Your task to perform on an android device: Clear the shopping cart on bestbuy. Add lg ultragear to the cart on bestbuy, then select checkout. Image 0: 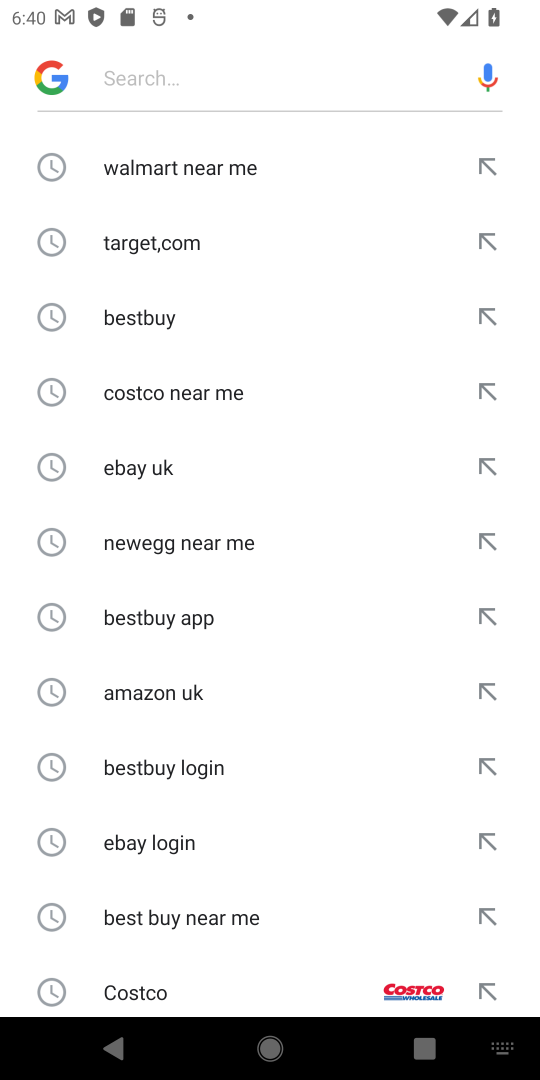
Step 0: click (118, 315)
Your task to perform on an android device: Clear the shopping cart on bestbuy. Add lg ultragear to the cart on bestbuy, then select checkout. Image 1: 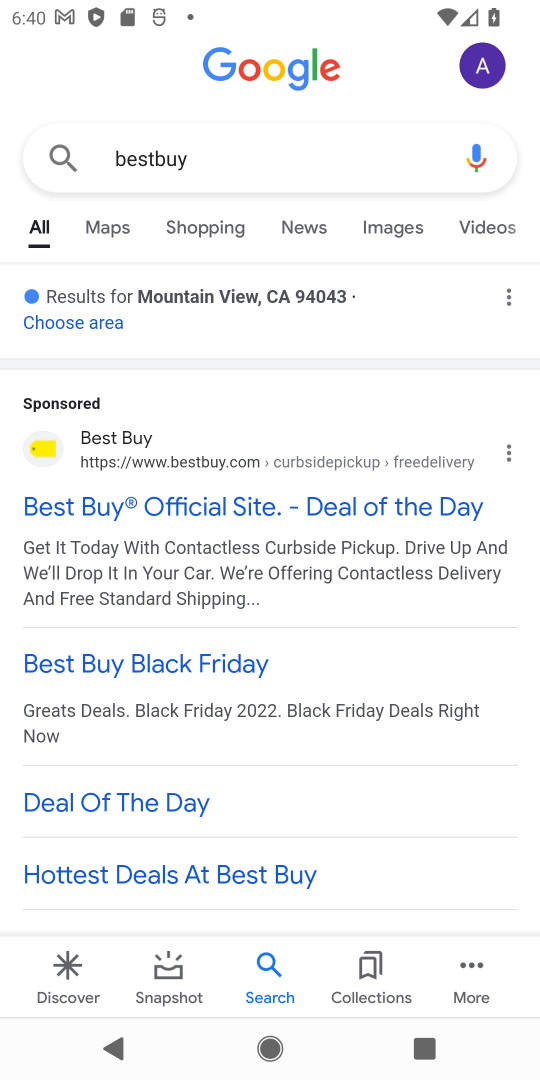
Step 1: click (195, 497)
Your task to perform on an android device: Clear the shopping cart on bestbuy. Add lg ultragear to the cart on bestbuy, then select checkout. Image 2: 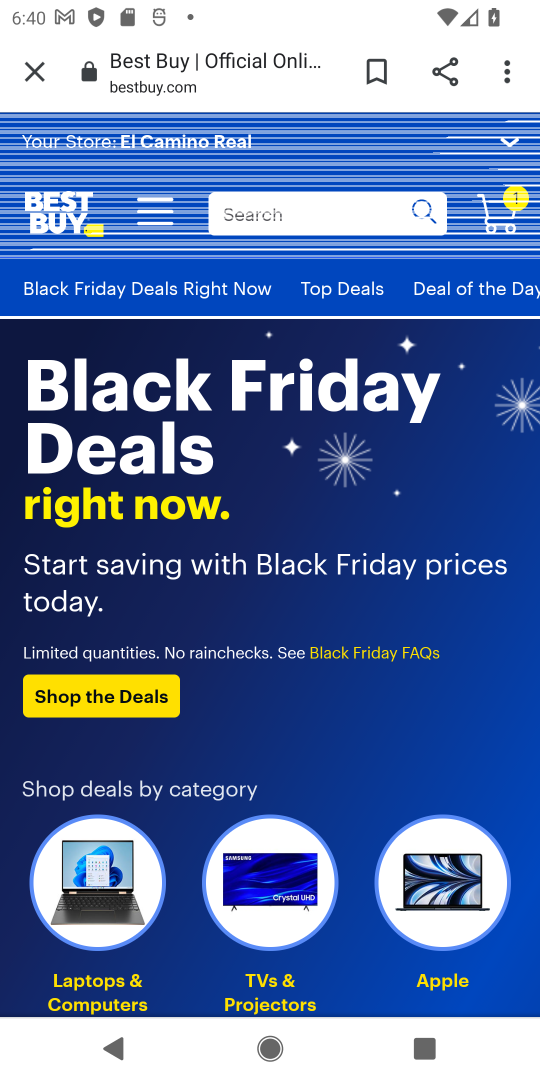
Step 2: click (310, 209)
Your task to perform on an android device: Clear the shopping cart on bestbuy. Add lg ultragear to the cart on bestbuy, then select checkout. Image 3: 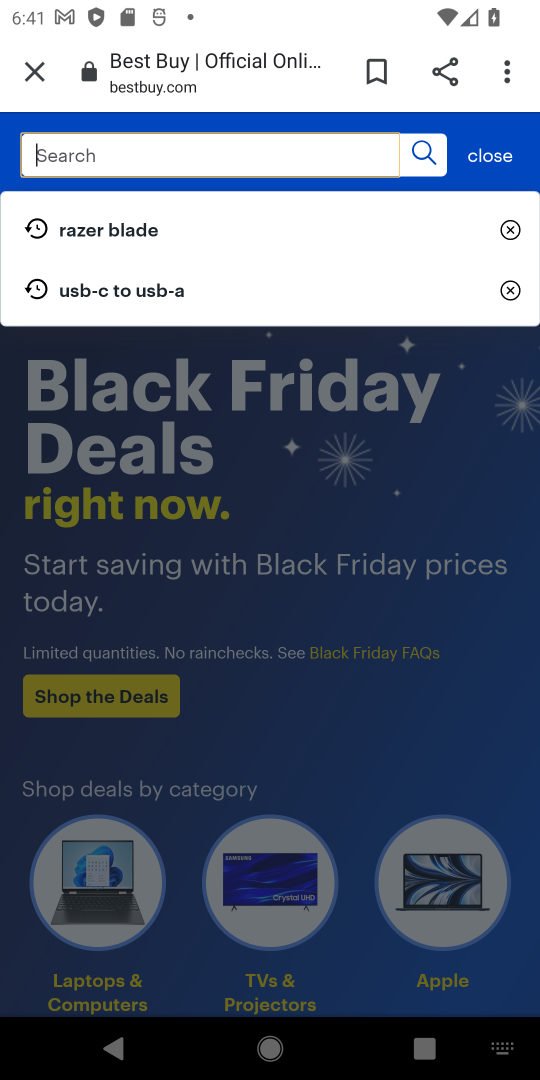
Step 3: type "lg ultragear"
Your task to perform on an android device: Clear the shopping cart on bestbuy. Add lg ultragear to the cart on bestbuy, then select checkout. Image 4: 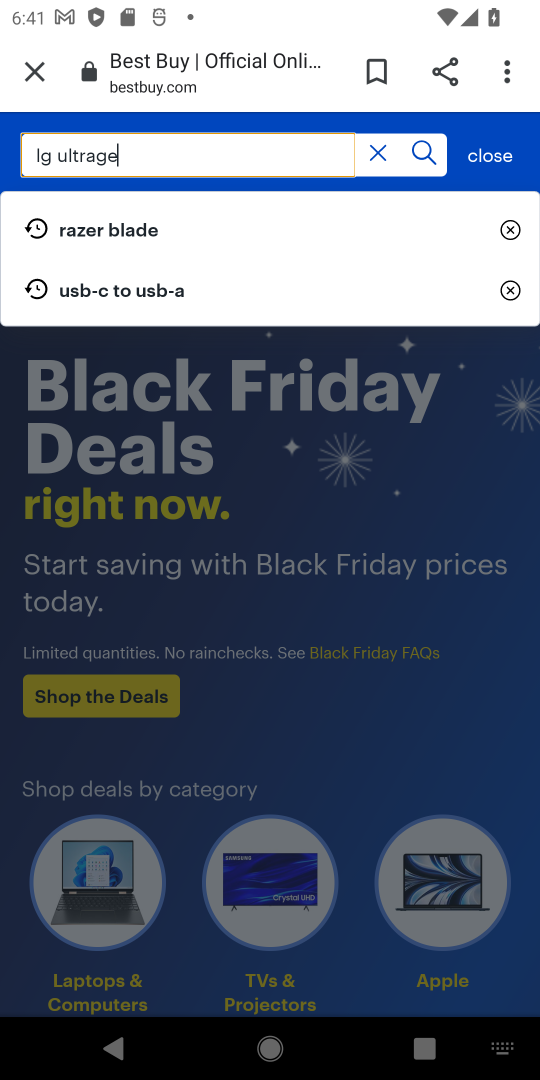
Step 4: press enter
Your task to perform on an android device: Clear the shopping cart on bestbuy. Add lg ultragear to the cart on bestbuy, then select checkout. Image 5: 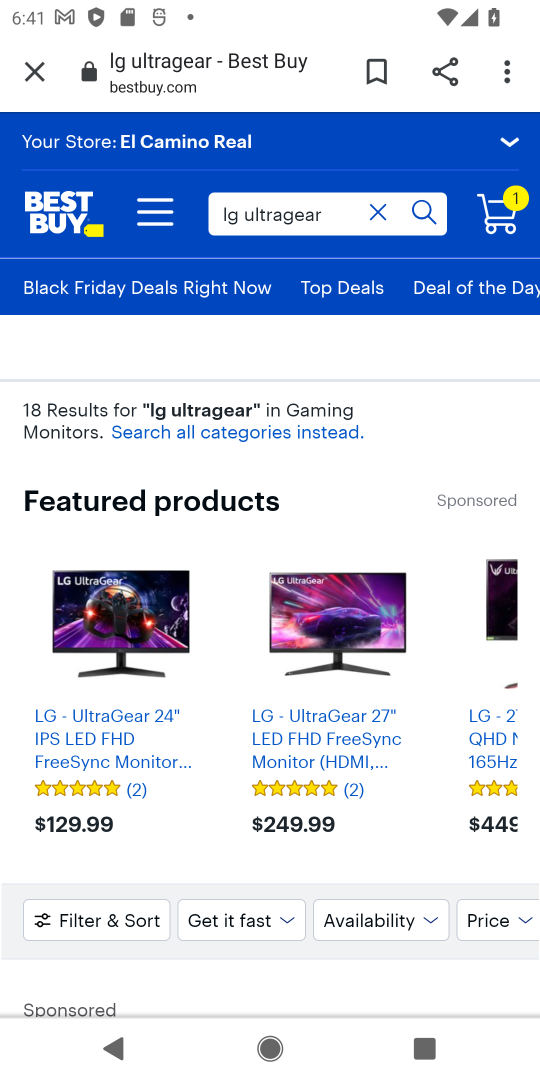
Step 5: drag from (231, 867) to (504, 310)
Your task to perform on an android device: Clear the shopping cart on bestbuy. Add lg ultragear to the cart on bestbuy, then select checkout. Image 6: 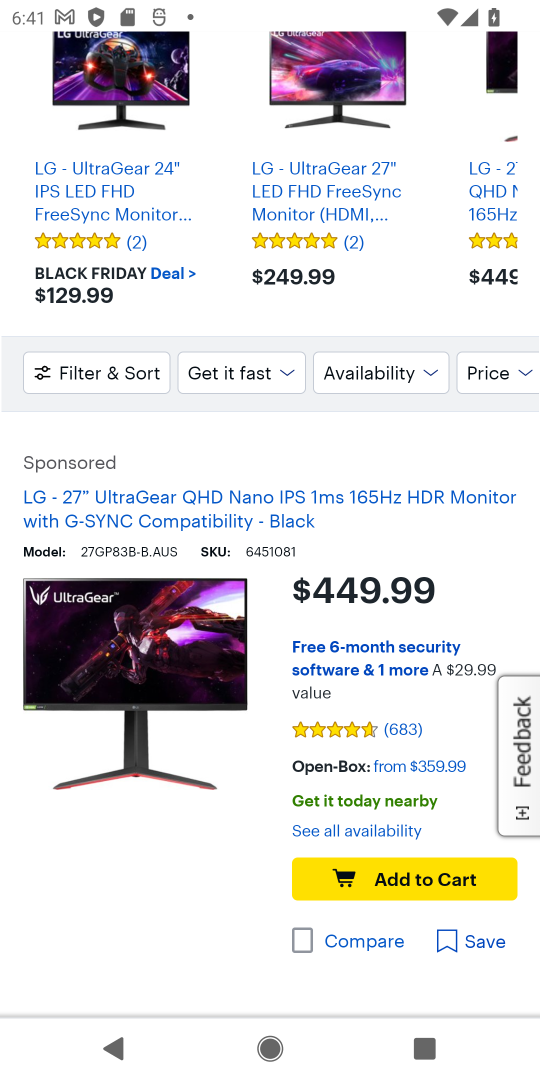
Step 6: click (388, 881)
Your task to perform on an android device: Clear the shopping cart on bestbuy. Add lg ultragear to the cart on bestbuy, then select checkout. Image 7: 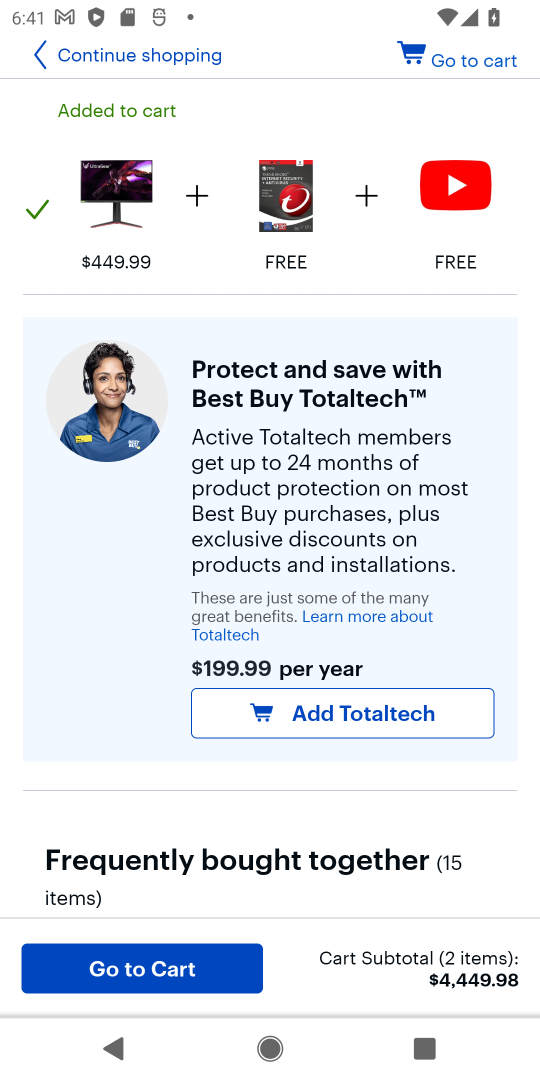
Step 7: click (481, 56)
Your task to perform on an android device: Clear the shopping cart on bestbuy. Add lg ultragear to the cart on bestbuy, then select checkout. Image 8: 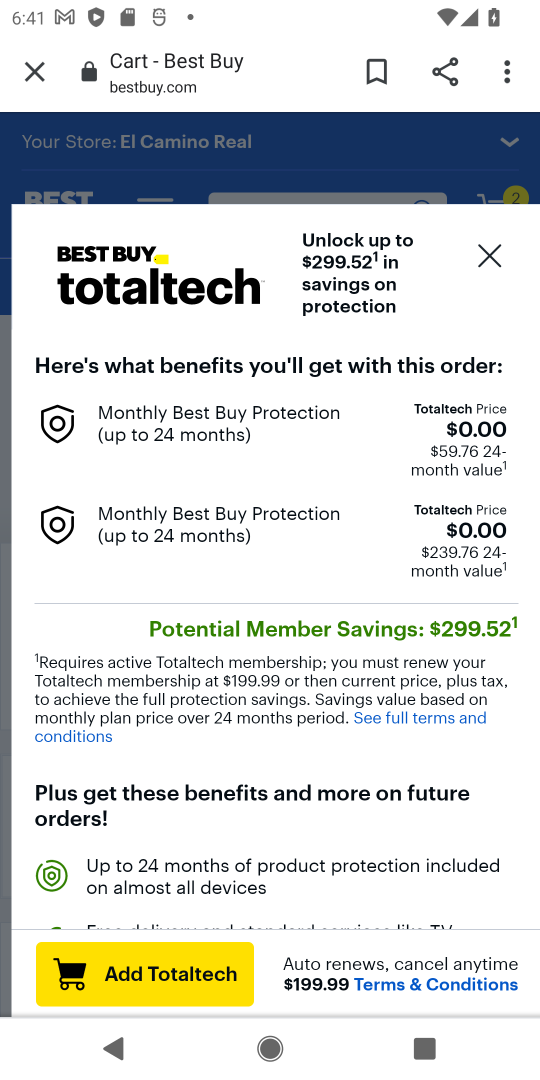
Step 8: click (490, 248)
Your task to perform on an android device: Clear the shopping cart on bestbuy. Add lg ultragear to the cart on bestbuy, then select checkout. Image 9: 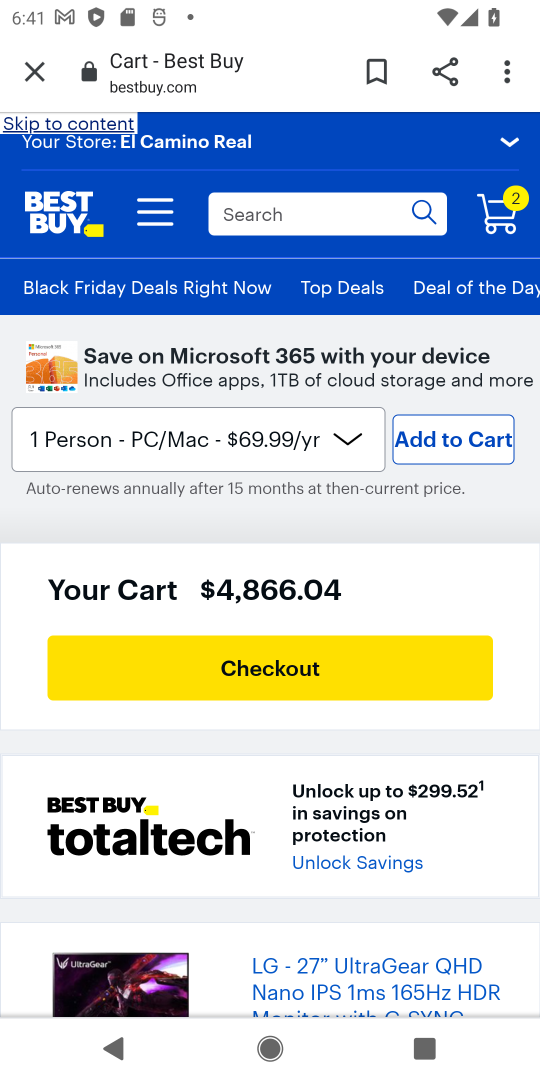
Step 9: drag from (278, 898) to (455, 81)
Your task to perform on an android device: Clear the shopping cart on bestbuy. Add lg ultragear to the cart on bestbuy, then select checkout. Image 10: 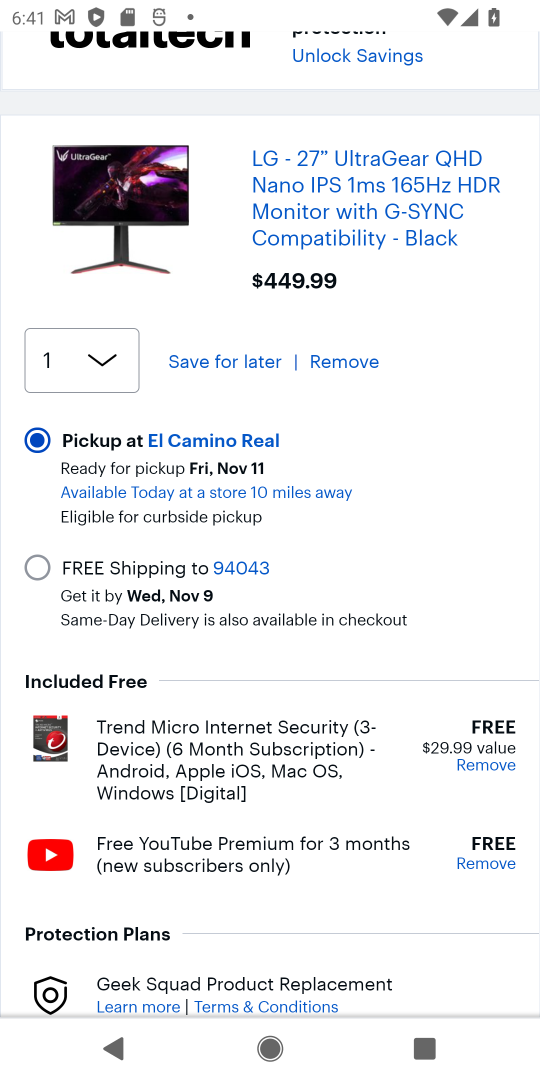
Step 10: drag from (325, 819) to (445, 81)
Your task to perform on an android device: Clear the shopping cart on bestbuy. Add lg ultragear to the cart on bestbuy, then select checkout. Image 11: 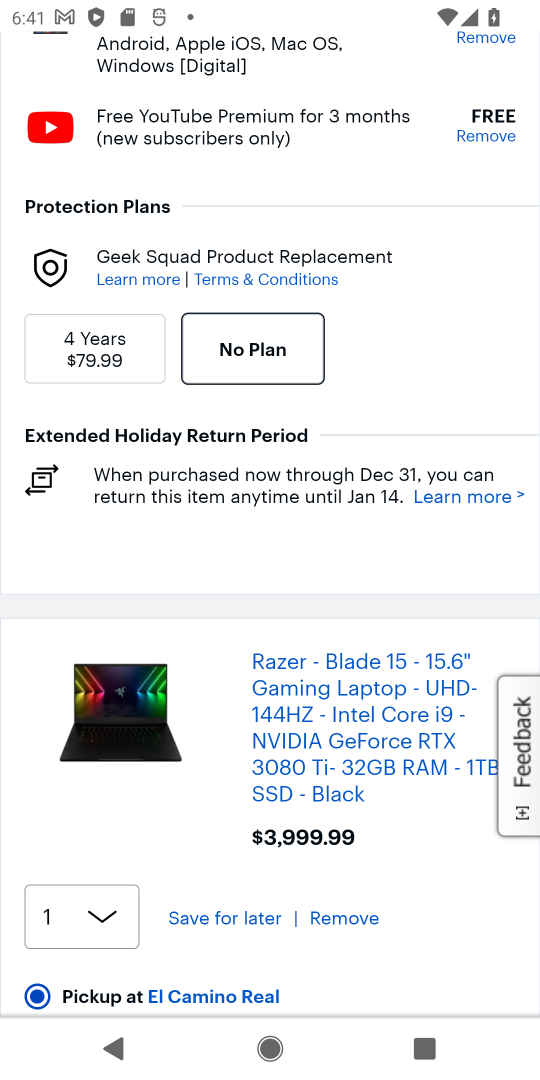
Step 11: click (350, 913)
Your task to perform on an android device: Clear the shopping cart on bestbuy. Add lg ultragear to the cart on bestbuy, then select checkout. Image 12: 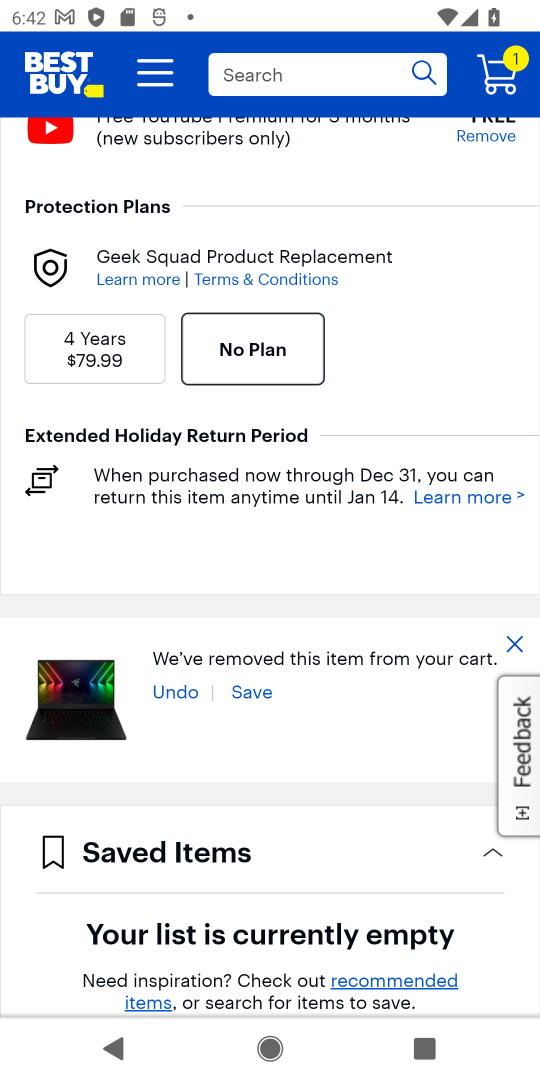
Step 12: task complete